Your task to perform on an android device: turn pop-ups off in chrome Image 0: 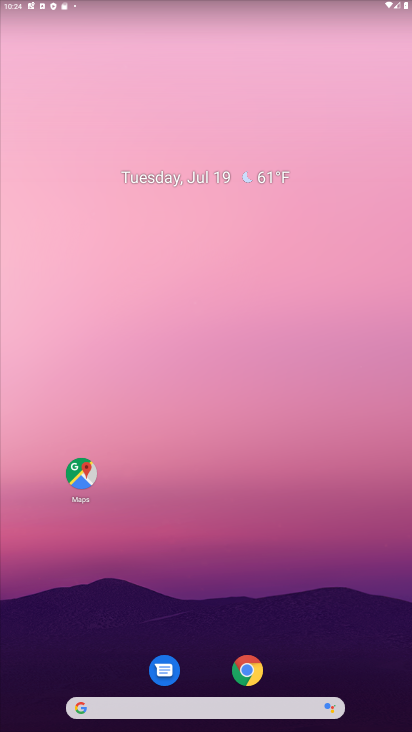
Step 0: click (249, 667)
Your task to perform on an android device: turn pop-ups off in chrome Image 1: 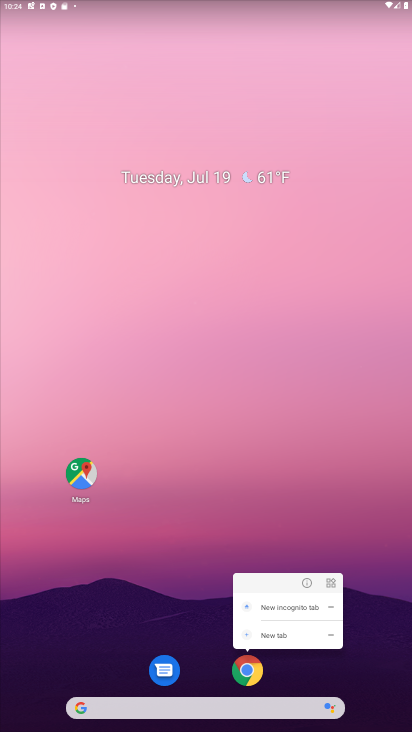
Step 1: click (249, 672)
Your task to perform on an android device: turn pop-ups off in chrome Image 2: 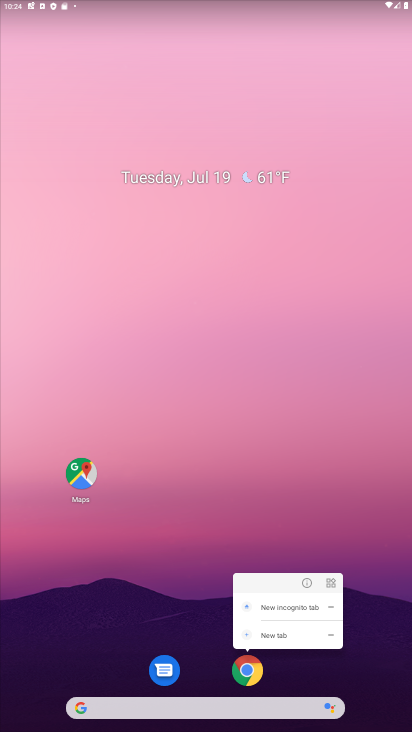
Step 2: click (249, 672)
Your task to perform on an android device: turn pop-ups off in chrome Image 3: 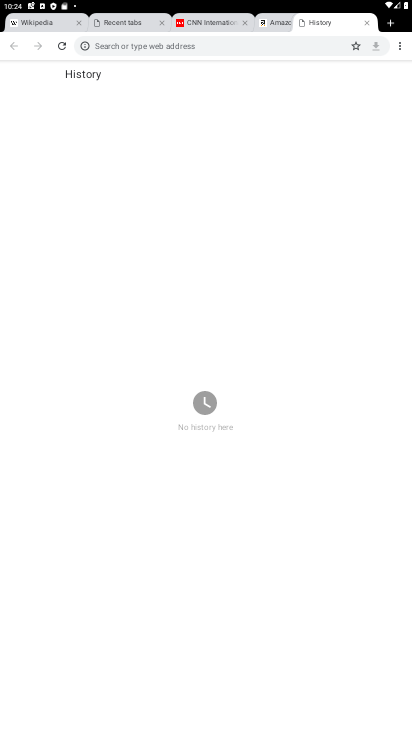
Step 3: click (398, 50)
Your task to perform on an android device: turn pop-ups off in chrome Image 4: 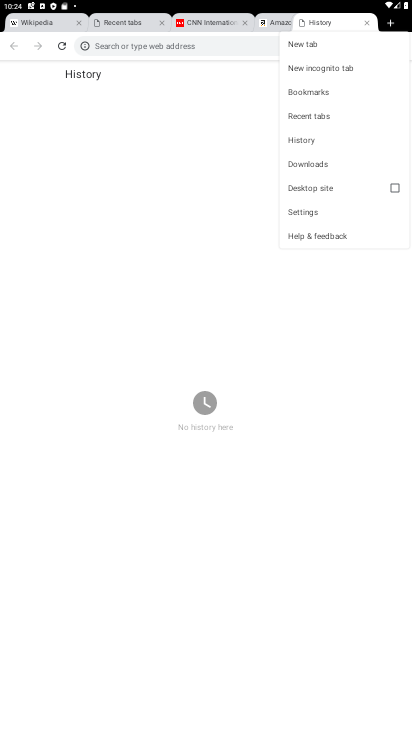
Step 4: click (316, 213)
Your task to perform on an android device: turn pop-ups off in chrome Image 5: 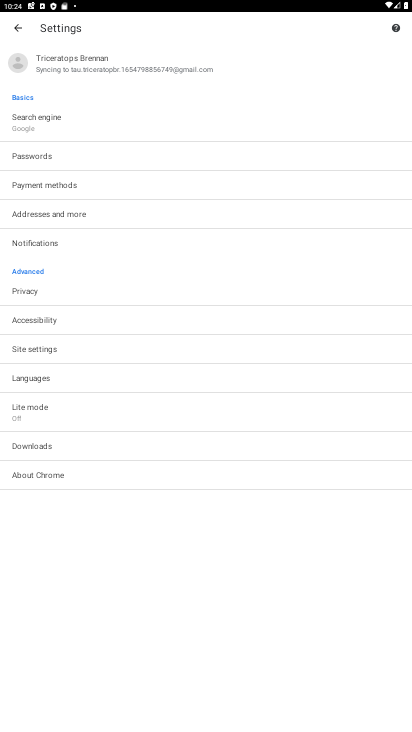
Step 5: click (36, 352)
Your task to perform on an android device: turn pop-ups off in chrome Image 6: 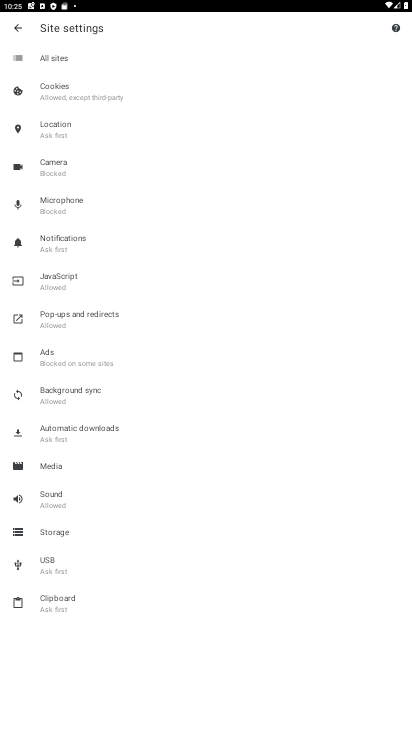
Step 6: click (79, 323)
Your task to perform on an android device: turn pop-ups off in chrome Image 7: 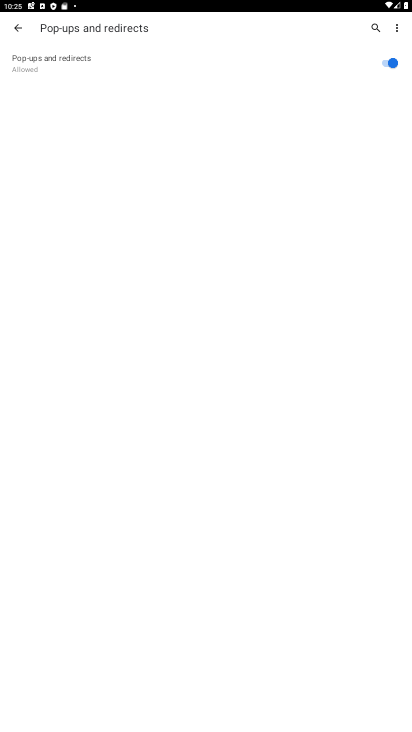
Step 7: click (389, 62)
Your task to perform on an android device: turn pop-ups off in chrome Image 8: 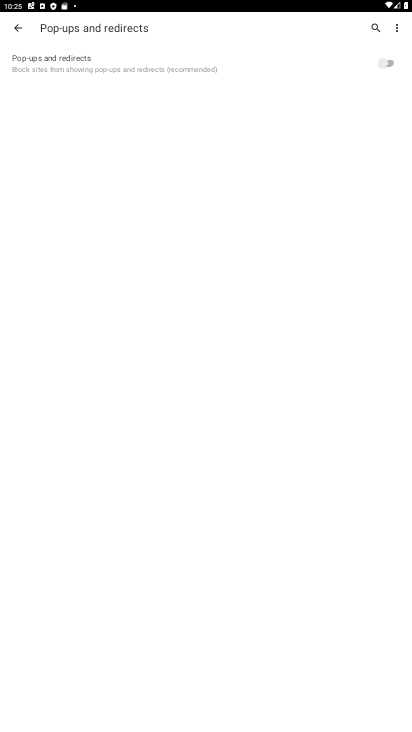
Step 8: task complete